Your task to perform on an android device: Go to Android settings Image 0: 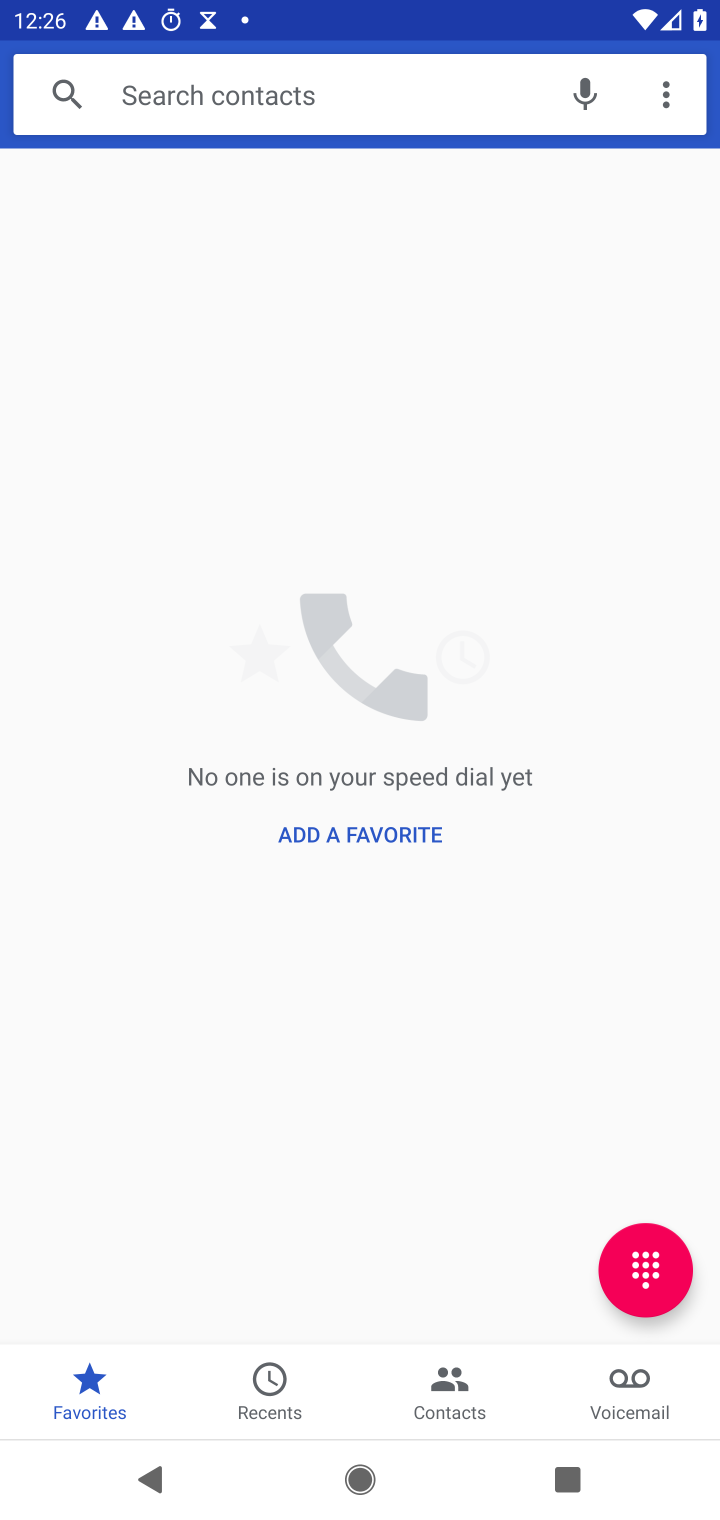
Step 0: press home button
Your task to perform on an android device: Go to Android settings Image 1: 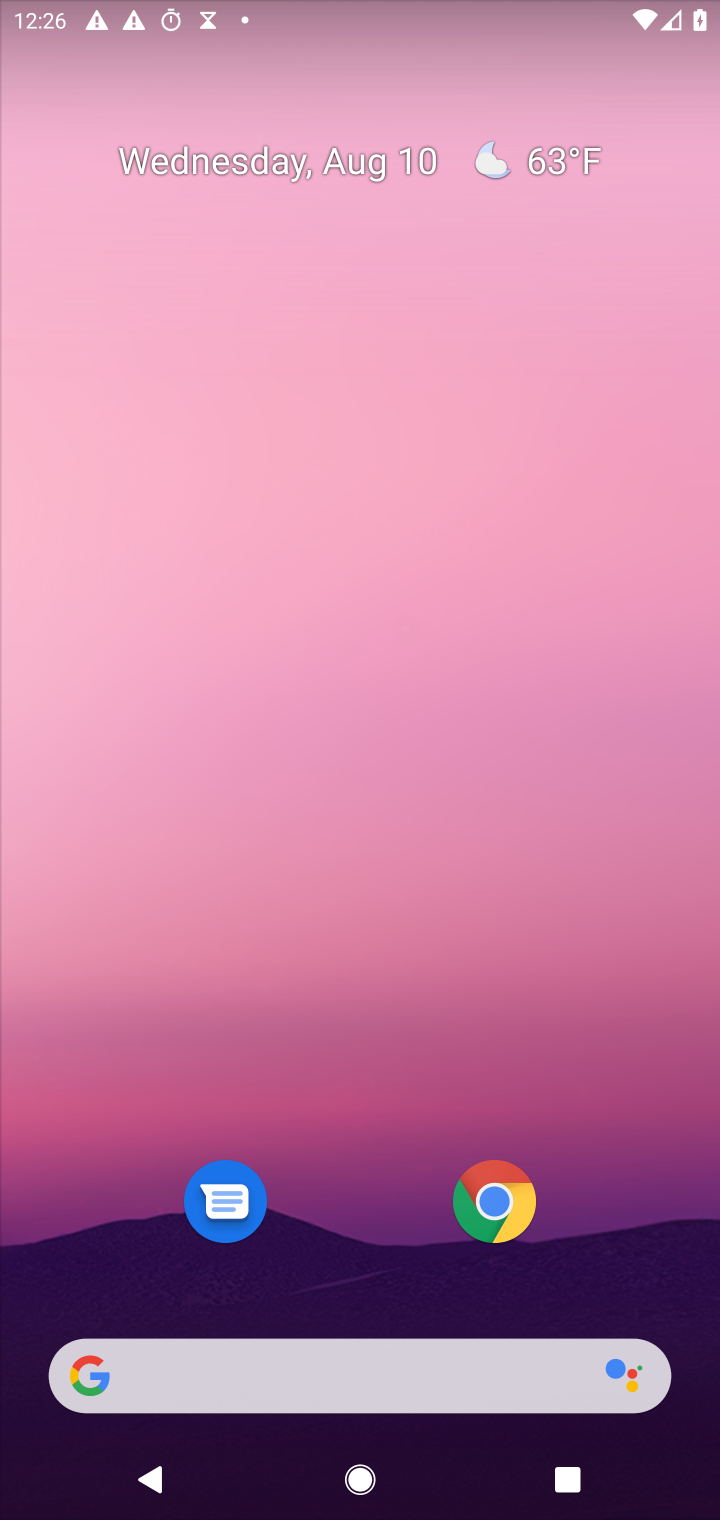
Step 1: drag from (383, 1193) to (534, 2)
Your task to perform on an android device: Go to Android settings Image 2: 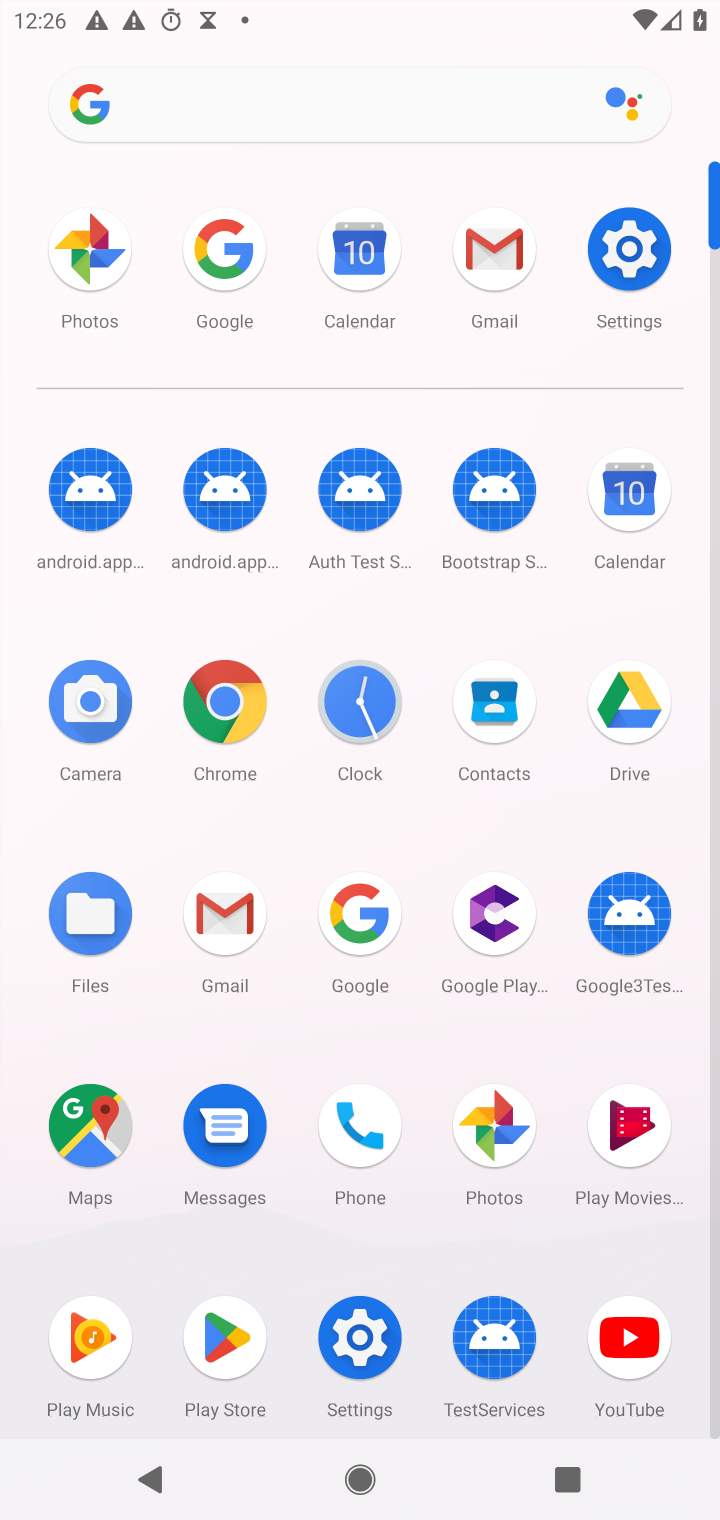
Step 2: click (632, 257)
Your task to perform on an android device: Go to Android settings Image 3: 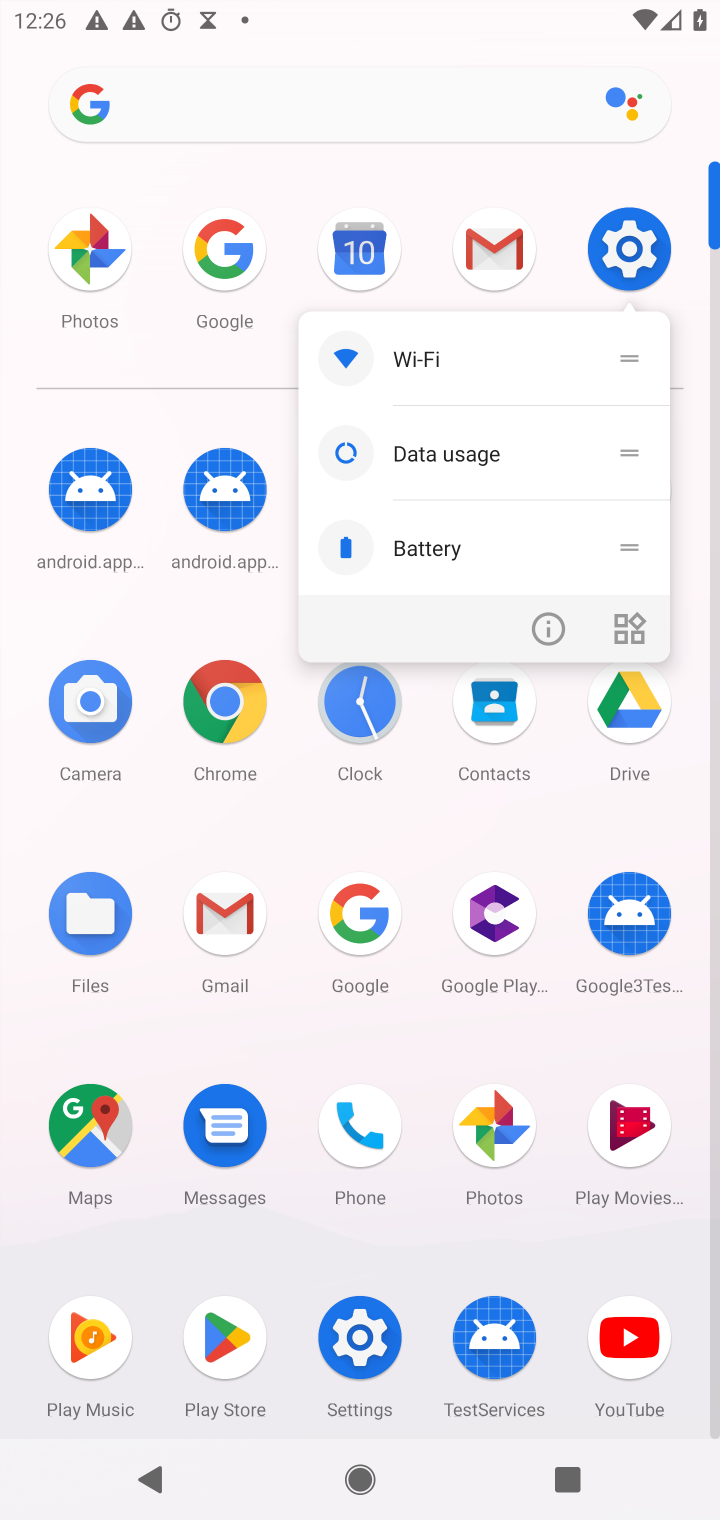
Step 3: click (638, 245)
Your task to perform on an android device: Go to Android settings Image 4: 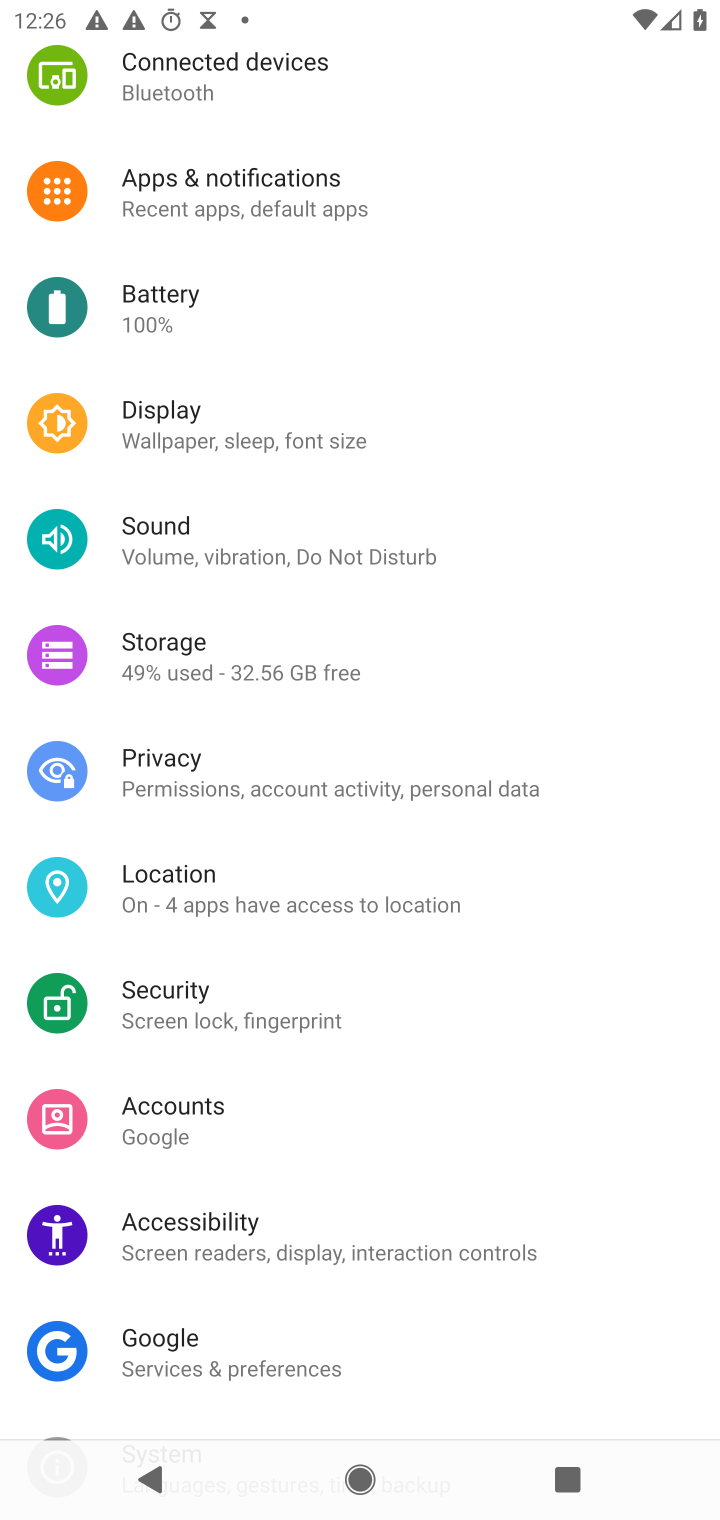
Step 4: task complete